Your task to perform on an android device: turn notification dots on Image 0: 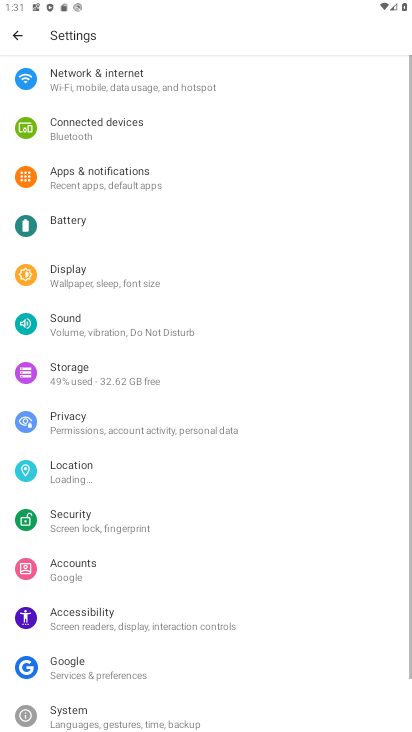
Step 0: drag from (326, 618) to (202, 46)
Your task to perform on an android device: turn notification dots on Image 1: 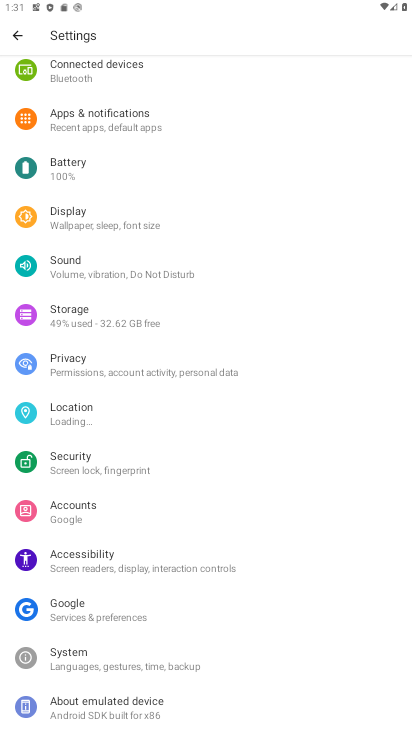
Step 1: press home button
Your task to perform on an android device: turn notification dots on Image 2: 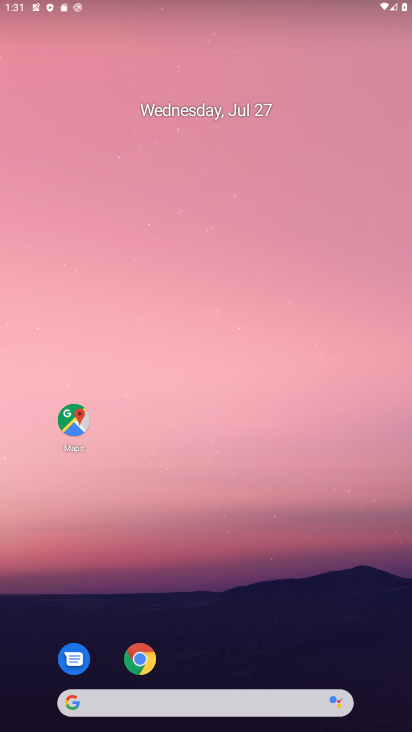
Step 2: drag from (309, 665) to (287, 30)
Your task to perform on an android device: turn notification dots on Image 3: 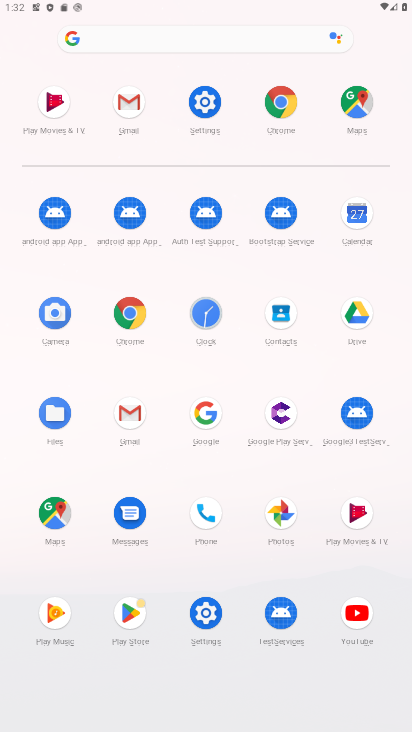
Step 3: click (208, 96)
Your task to perform on an android device: turn notification dots on Image 4: 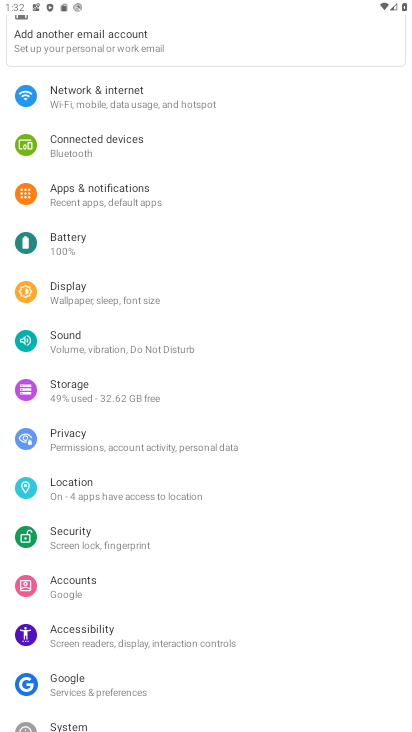
Step 4: click (103, 184)
Your task to perform on an android device: turn notification dots on Image 5: 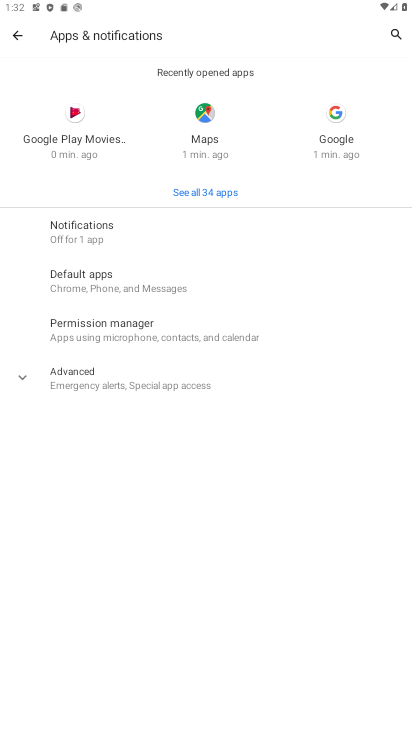
Step 5: click (117, 220)
Your task to perform on an android device: turn notification dots on Image 6: 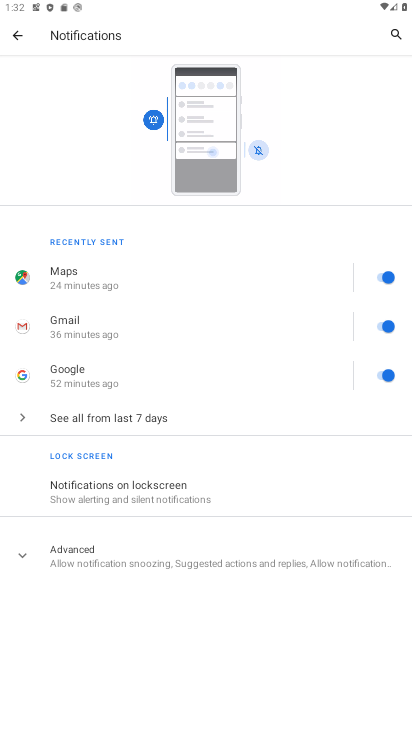
Step 6: click (237, 562)
Your task to perform on an android device: turn notification dots on Image 7: 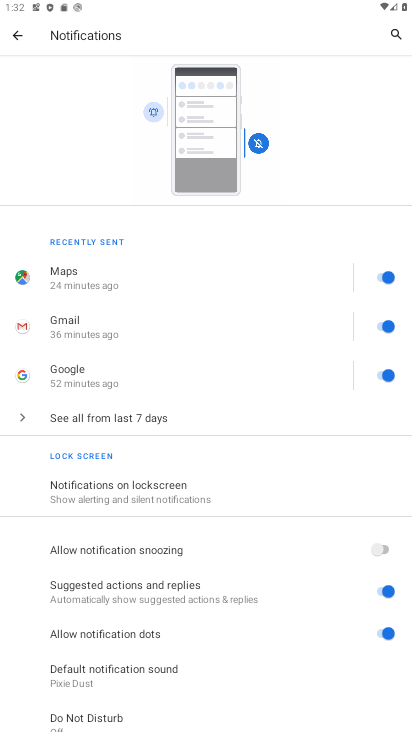
Step 7: task complete